Your task to perform on an android device: Open Amazon Image 0: 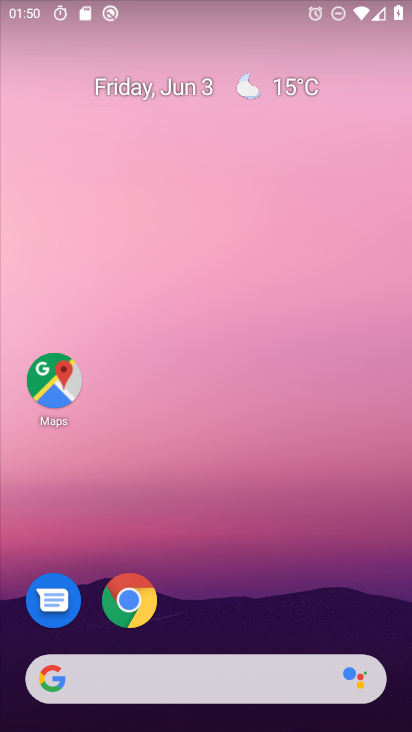
Step 0: drag from (216, 590) to (239, 79)
Your task to perform on an android device: Open Amazon Image 1: 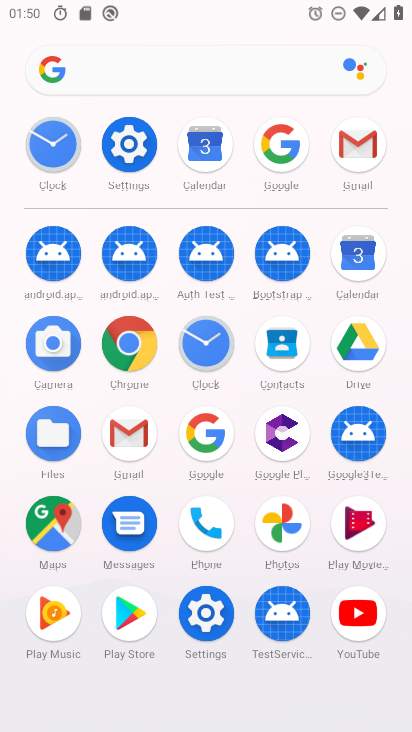
Step 1: click (134, 344)
Your task to perform on an android device: Open Amazon Image 2: 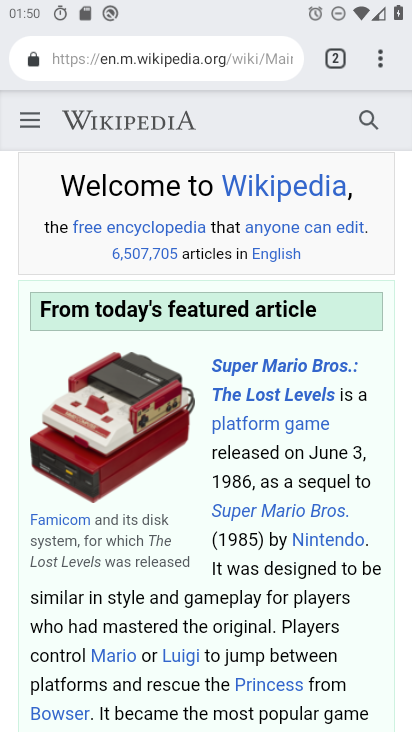
Step 2: task complete